Your task to perform on an android device: see sites visited before in the chrome app Image 0: 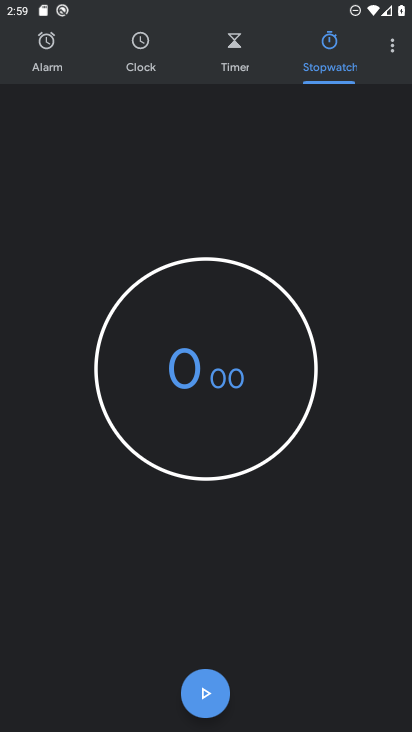
Step 0: press home button
Your task to perform on an android device: see sites visited before in the chrome app Image 1: 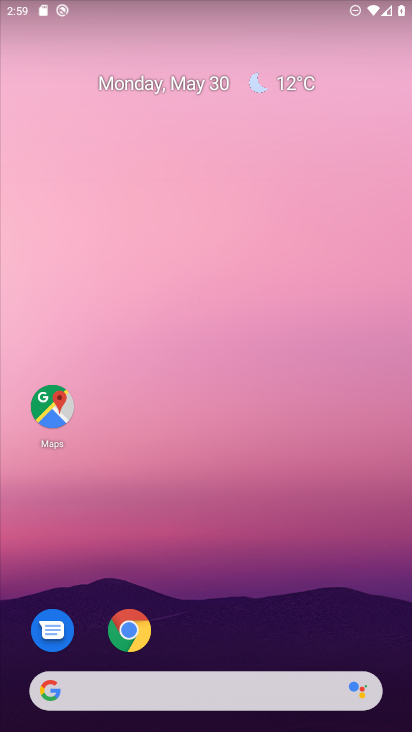
Step 1: click (132, 630)
Your task to perform on an android device: see sites visited before in the chrome app Image 2: 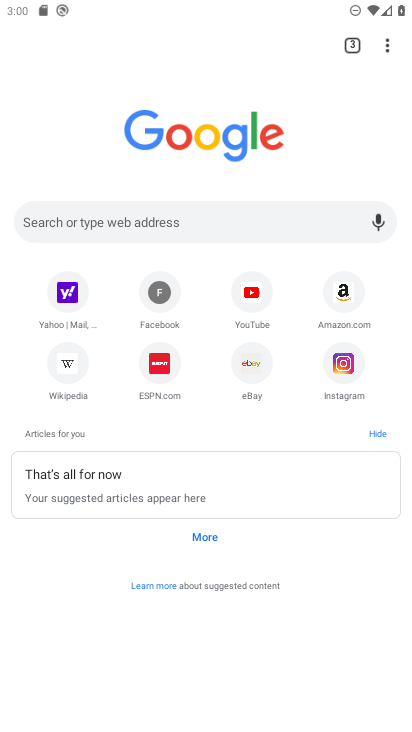
Step 2: task complete